Your task to perform on an android device: turn on airplane mode Image 0: 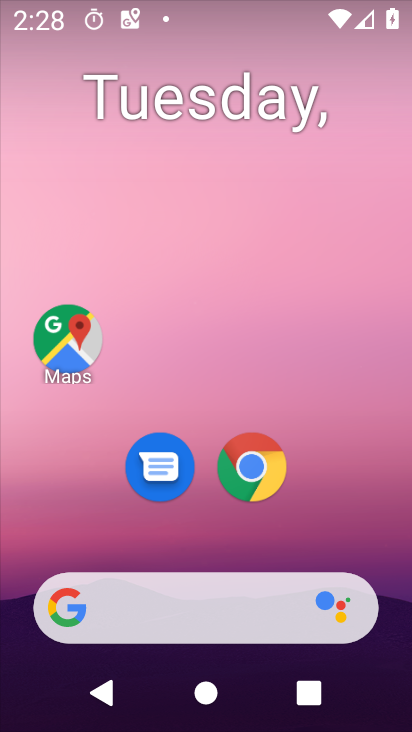
Step 0: drag from (366, 508) to (372, 182)
Your task to perform on an android device: turn on airplane mode Image 1: 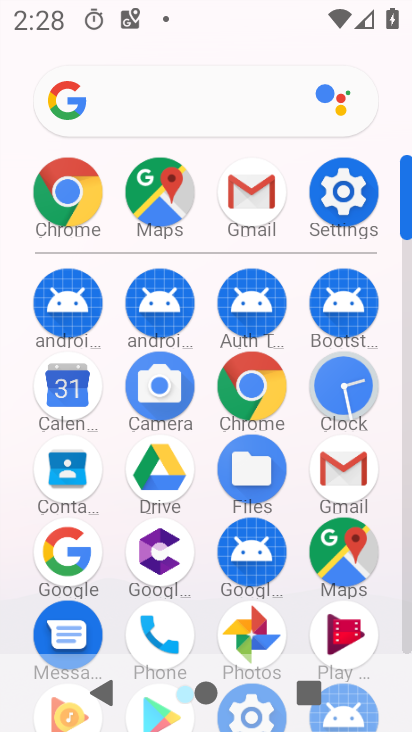
Step 1: click (348, 208)
Your task to perform on an android device: turn on airplane mode Image 2: 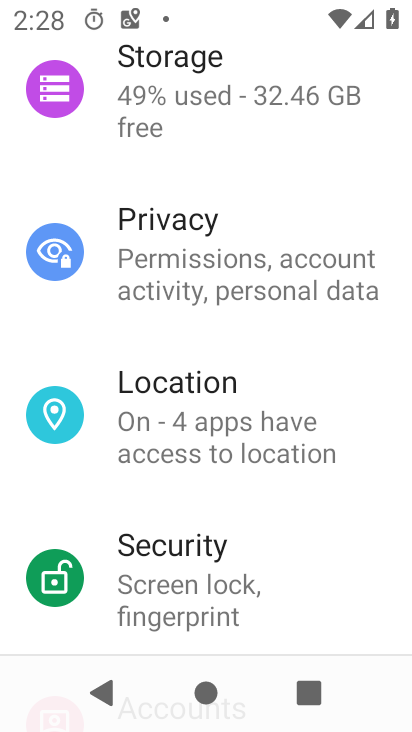
Step 2: drag from (340, 190) to (347, 328)
Your task to perform on an android device: turn on airplane mode Image 3: 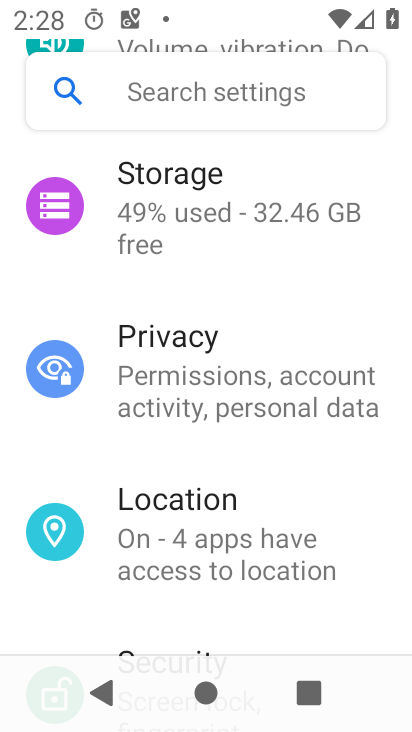
Step 3: drag from (370, 176) to (358, 324)
Your task to perform on an android device: turn on airplane mode Image 4: 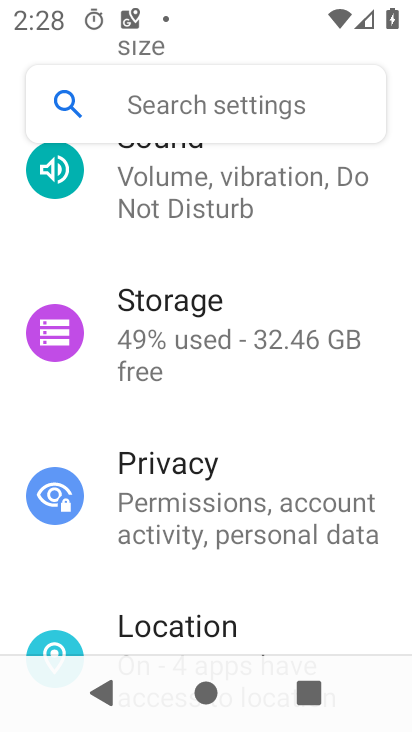
Step 4: drag from (380, 207) to (370, 307)
Your task to perform on an android device: turn on airplane mode Image 5: 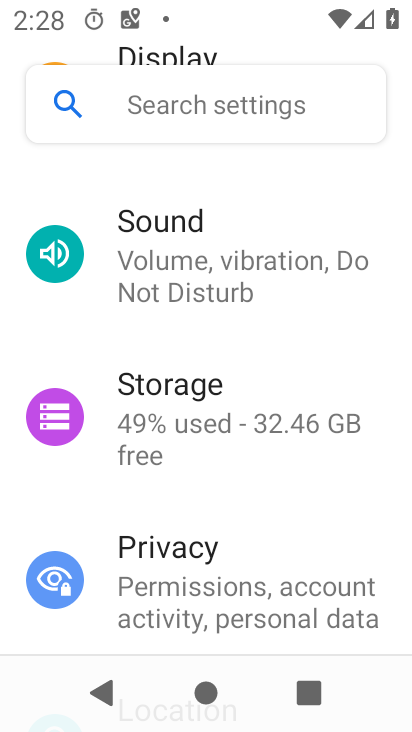
Step 5: drag from (366, 211) to (375, 399)
Your task to perform on an android device: turn on airplane mode Image 6: 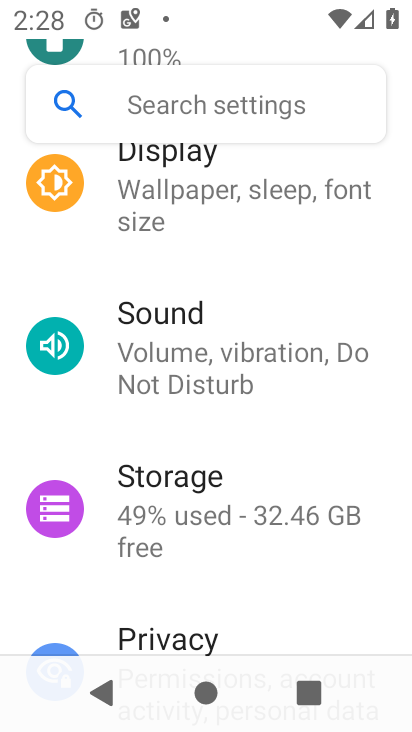
Step 6: drag from (371, 229) to (363, 381)
Your task to perform on an android device: turn on airplane mode Image 7: 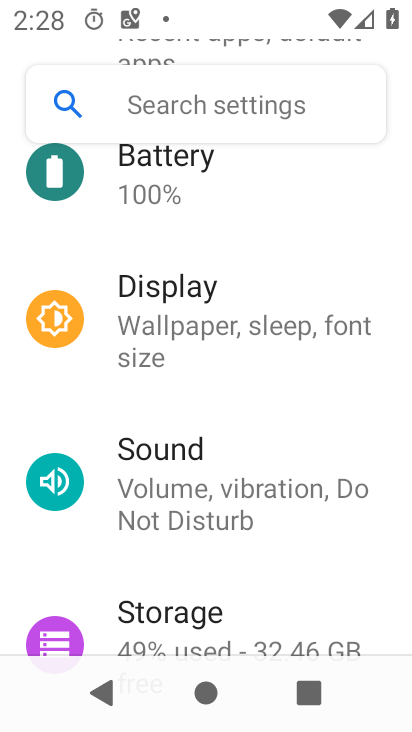
Step 7: drag from (359, 242) to (361, 402)
Your task to perform on an android device: turn on airplane mode Image 8: 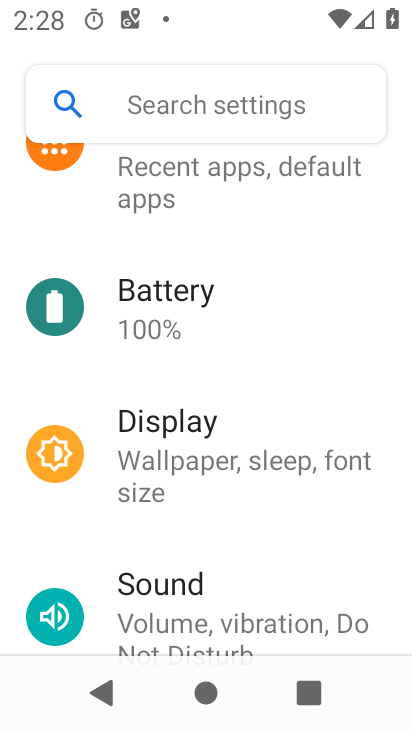
Step 8: drag from (349, 242) to (352, 384)
Your task to perform on an android device: turn on airplane mode Image 9: 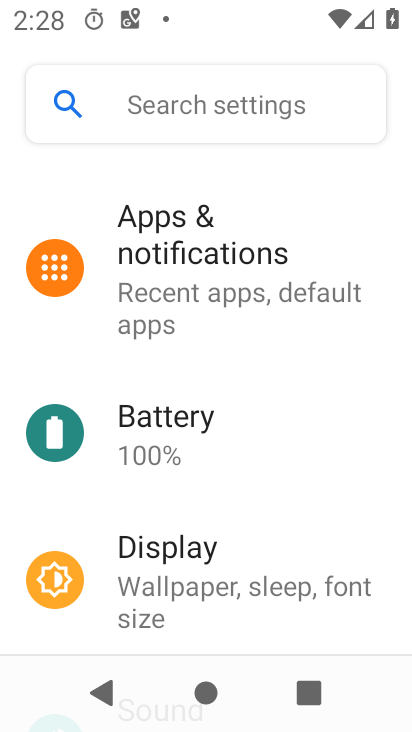
Step 9: drag from (342, 202) to (343, 373)
Your task to perform on an android device: turn on airplane mode Image 10: 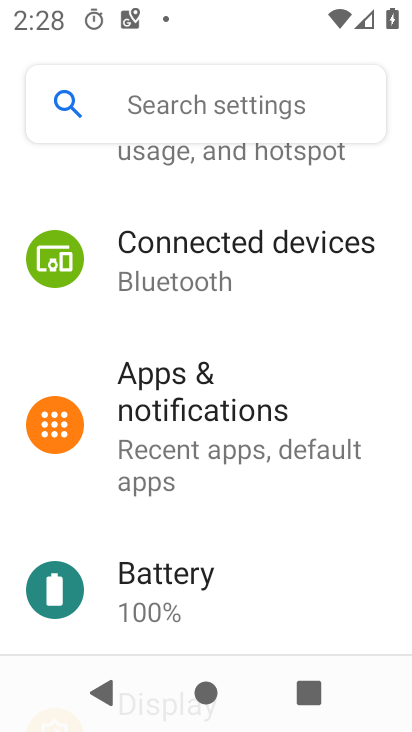
Step 10: drag from (355, 195) to (341, 342)
Your task to perform on an android device: turn on airplane mode Image 11: 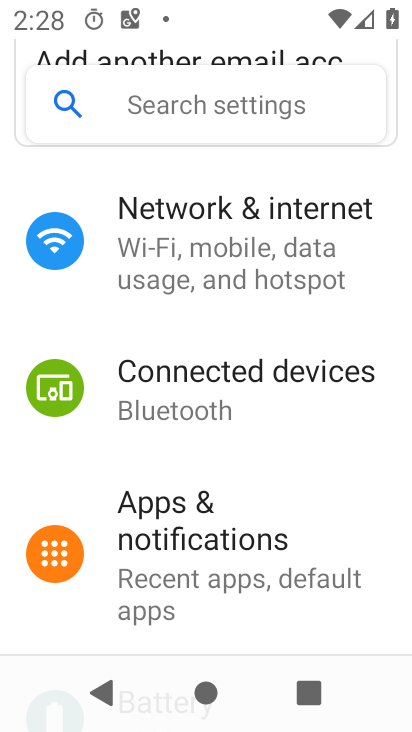
Step 11: drag from (366, 176) to (343, 376)
Your task to perform on an android device: turn on airplane mode Image 12: 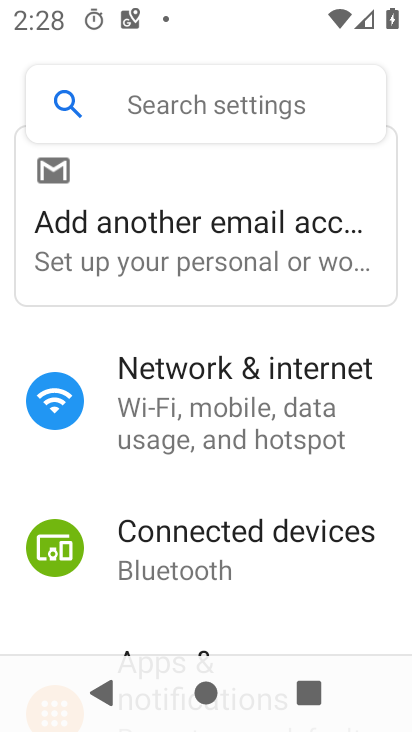
Step 12: click (288, 396)
Your task to perform on an android device: turn on airplane mode Image 13: 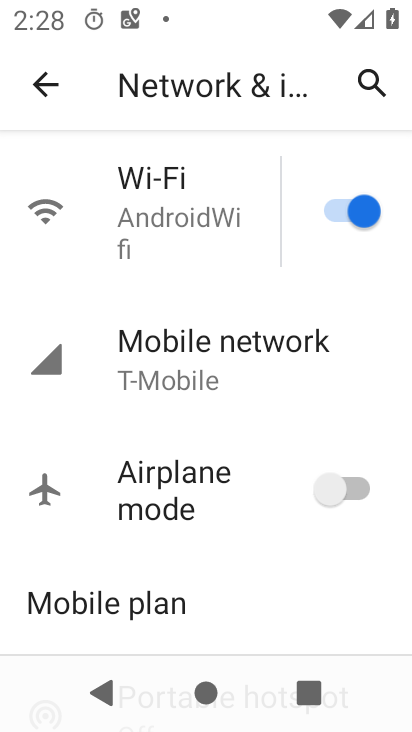
Step 13: click (328, 499)
Your task to perform on an android device: turn on airplane mode Image 14: 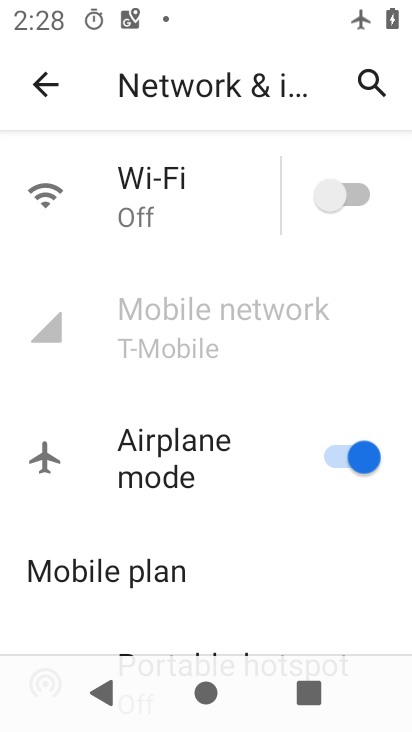
Step 14: task complete